Your task to perform on an android device: clear all cookies in the chrome app Image 0: 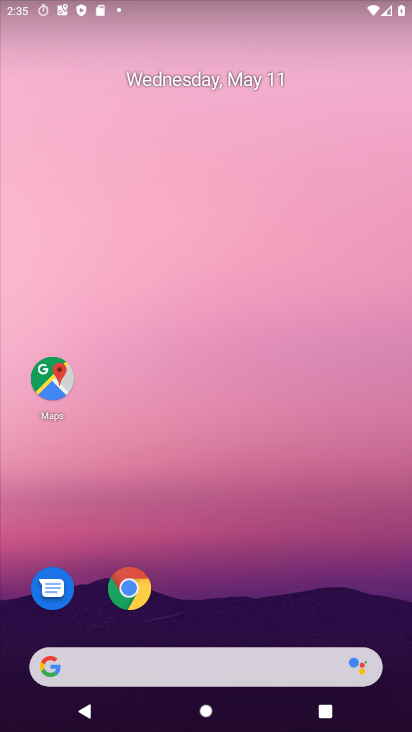
Step 0: click (140, 592)
Your task to perform on an android device: clear all cookies in the chrome app Image 1: 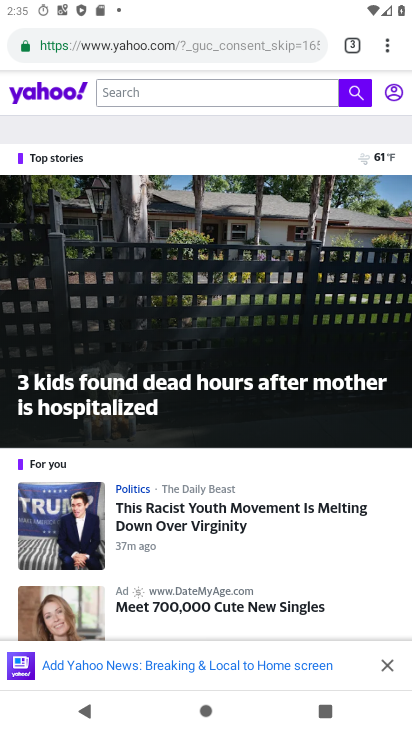
Step 1: drag from (384, 43) to (219, 148)
Your task to perform on an android device: clear all cookies in the chrome app Image 2: 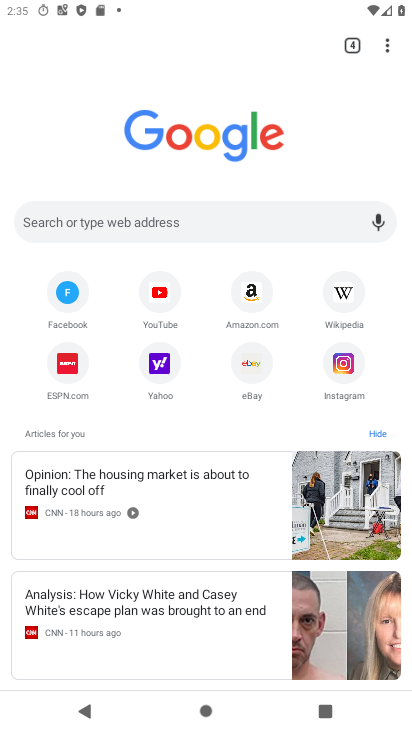
Step 2: drag from (387, 45) to (245, 429)
Your task to perform on an android device: clear all cookies in the chrome app Image 3: 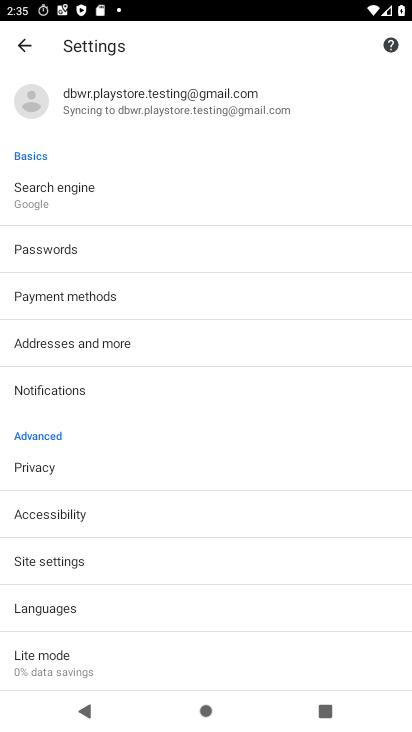
Step 3: drag from (255, 663) to (260, 314)
Your task to perform on an android device: clear all cookies in the chrome app Image 4: 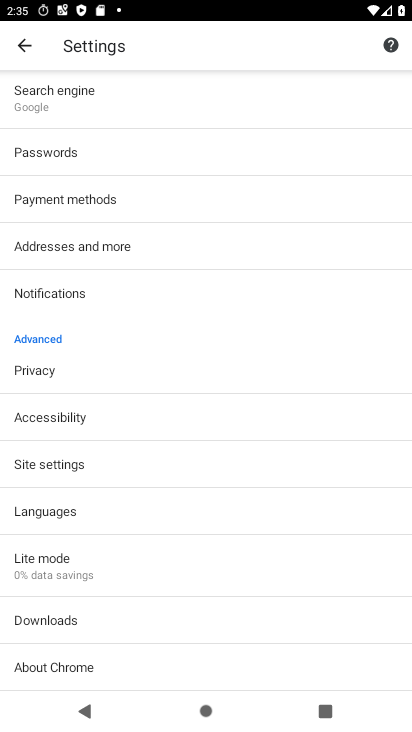
Step 4: click (44, 369)
Your task to perform on an android device: clear all cookies in the chrome app Image 5: 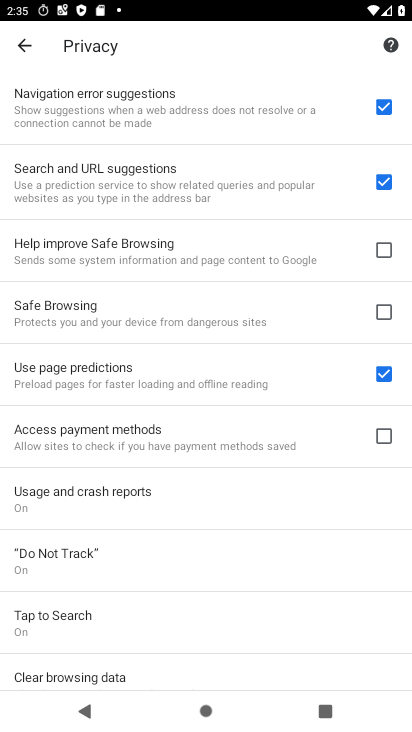
Step 5: drag from (309, 619) to (319, 144)
Your task to perform on an android device: clear all cookies in the chrome app Image 6: 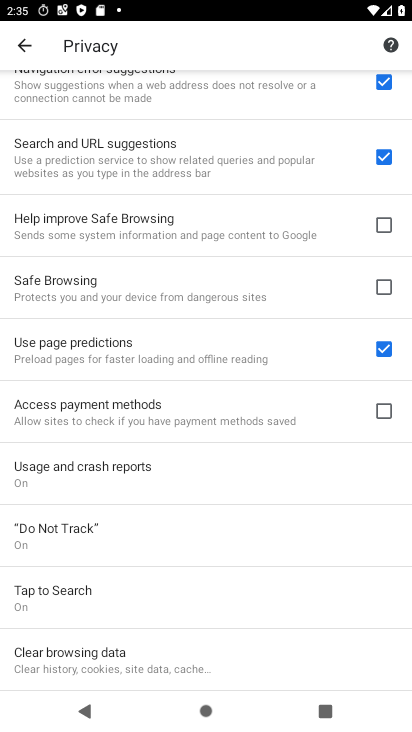
Step 6: click (101, 654)
Your task to perform on an android device: clear all cookies in the chrome app Image 7: 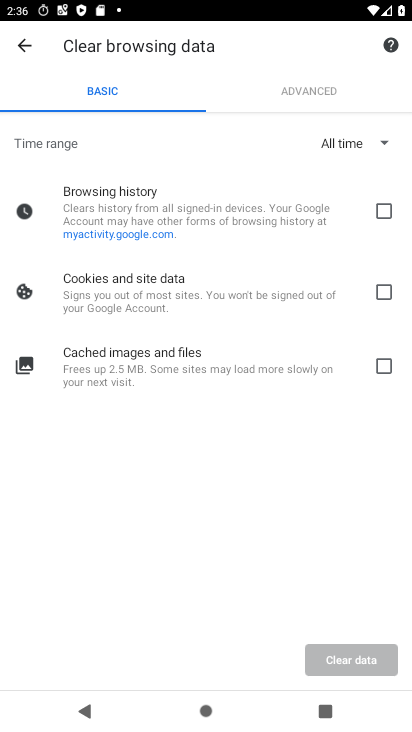
Step 7: click (389, 291)
Your task to perform on an android device: clear all cookies in the chrome app Image 8: 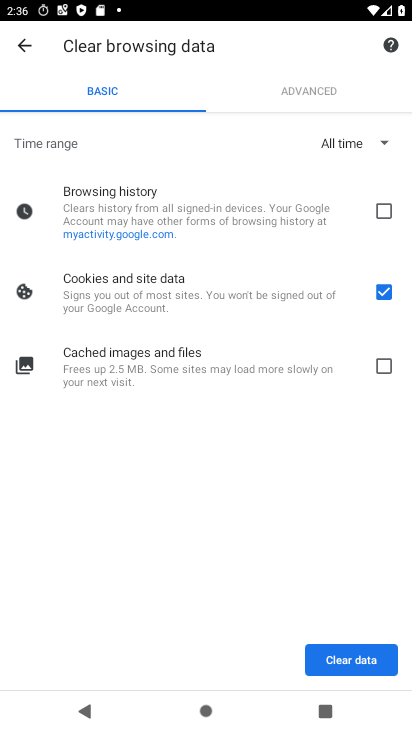
Step 8: click (362, 660)
Your task to perform on an android device: clear all cookies in the chrome app Image 9: 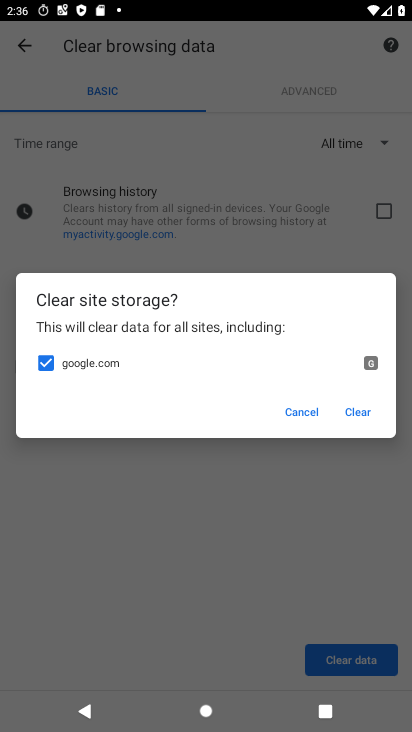
Step 9: click (359, 408)
Your task to perform on an android device: clear all cookies in the chrome app Image 10: 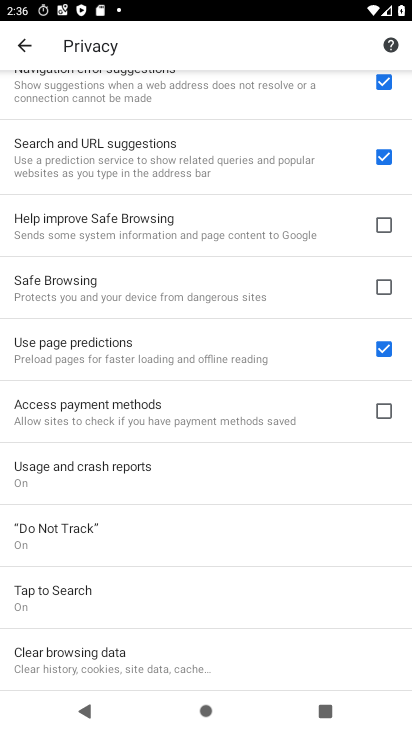
Step 10: task complete